Your task to perform on an android device: What is the news today? Image 0: 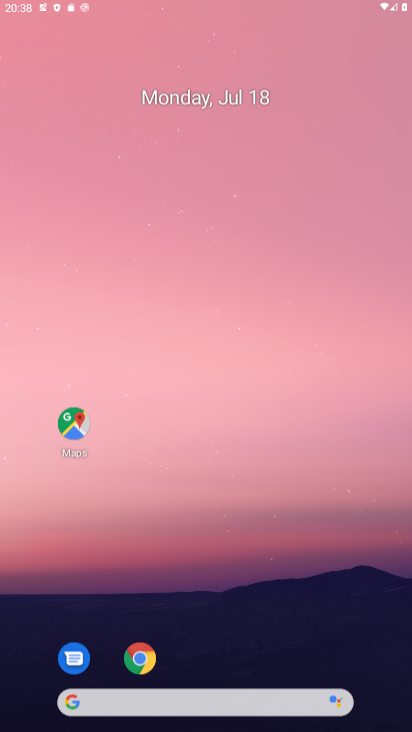
Step 0: click (316, 171)
Your task to perform on an android device: What is the news today? Image 1: 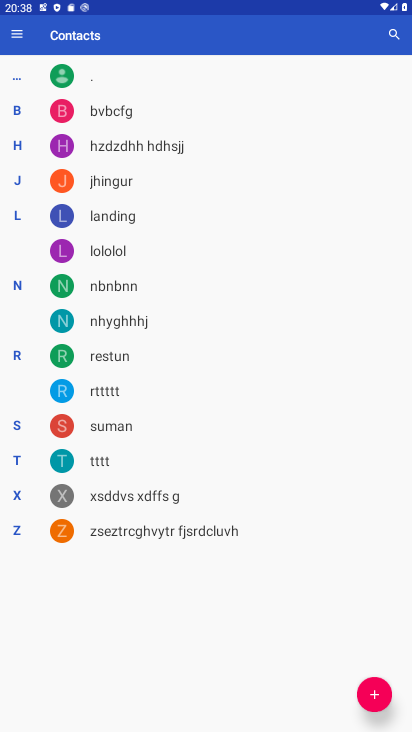
Step 1: press back button
Your task to perform on an android device: What is the news today? Image 2: 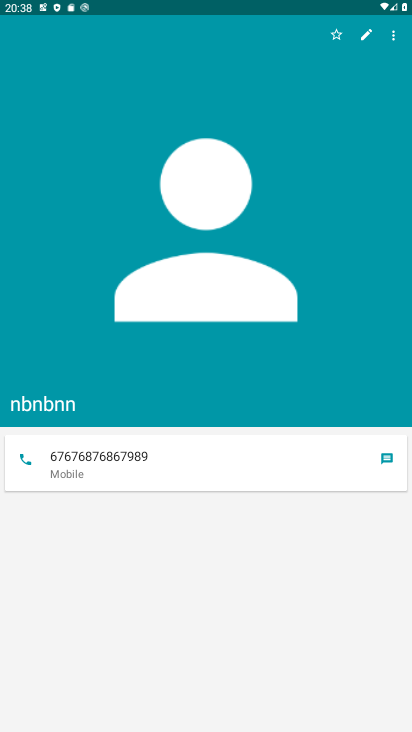
Step 2: press home button
Your task to perform on an android device: What is the news today? Image 3: 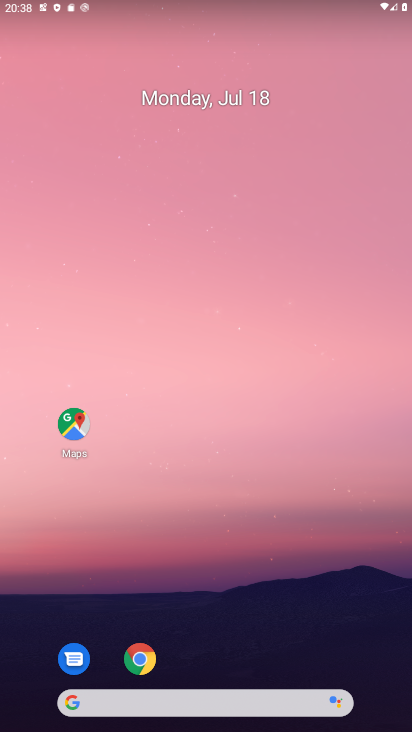
Step 3: drag from (239, 646) to (171, 184)
Your task to perform on an android device: What is the news today? Image 4: 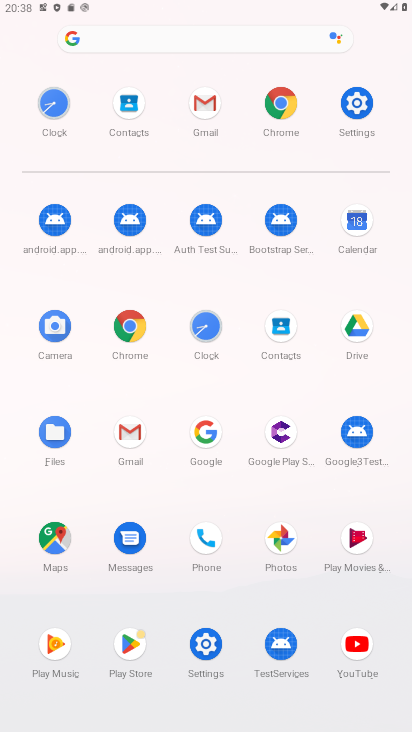
Step 4: click (277, 107)
Your task to perform on an android device: What is the news today? Image 5: 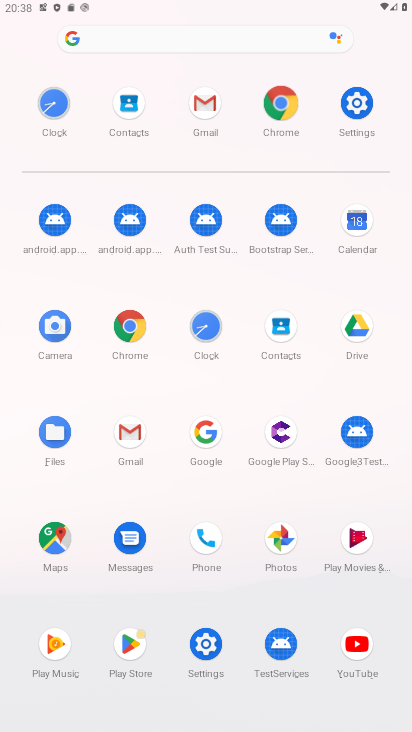
Step 5: click (278, 106)
Your task to perform on an android device: What is the news today? Image 6: 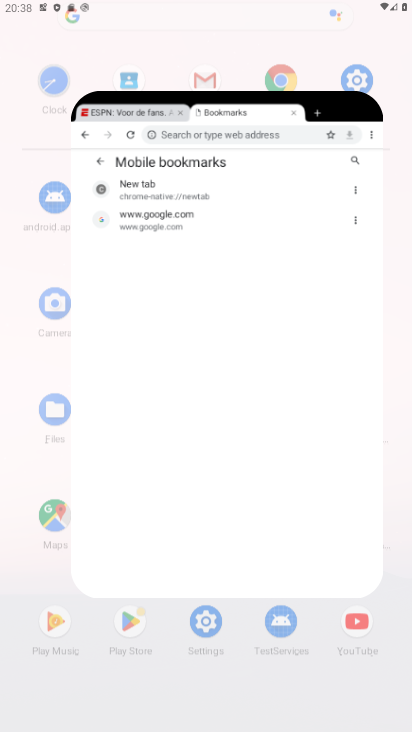
Step 6: click (284, 101)
Your task to perform on an android device: What is the news today? Image 7: 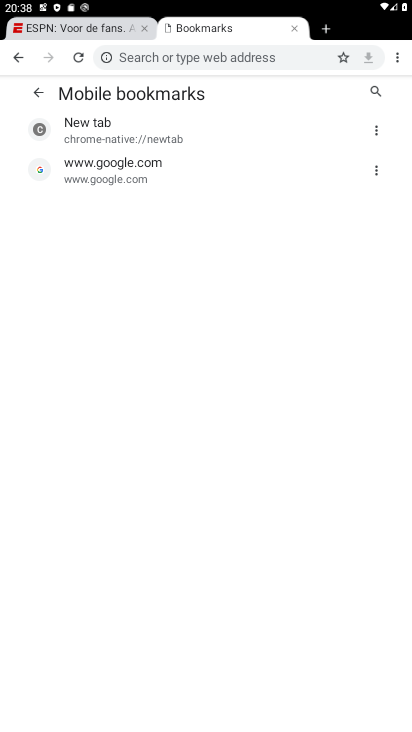
Step 7: task complete